Your task to perform on an android device: What's the weather going to be this weekend? Image 0: 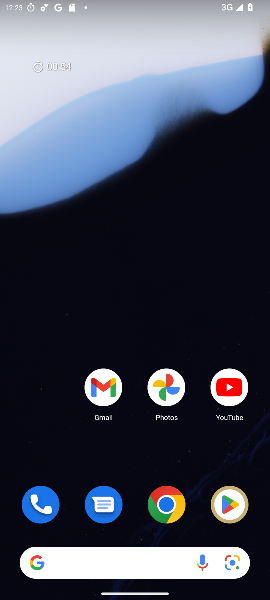
Step 0: press home button
Your task to perform on an android device: What's the weather going to be this weekend? Image 1: 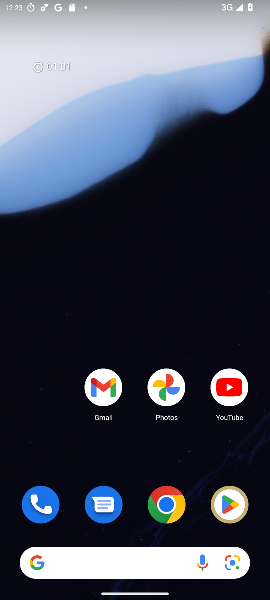
Step 1: drag from (137, 532) to (127, 215)
Your task to perform on an android device: What's the weather going to be this weekend? Image 2: 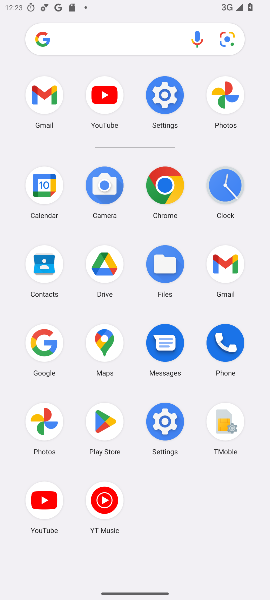
Step 2: click (46, 349)
Your task to perform on an android device: What's the weather going to be this weekend? Image 3: 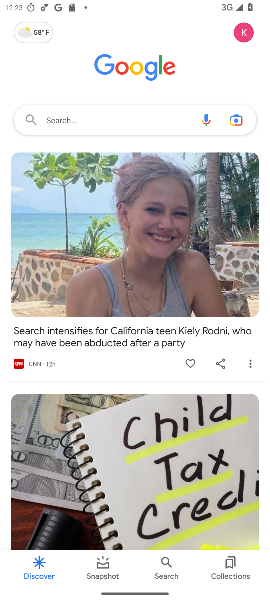
Step 3: click (66, 115)
Your task to perform on an android device: What's the weather going to be this weekend? Image 4: 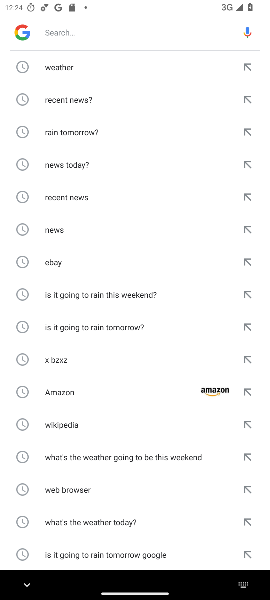
Step 4: type "weather going to be this weekend?"
Your task to perform on an android device: What's the weather going to be this weekend? Image 5: 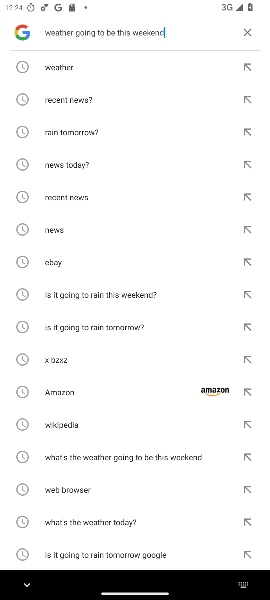
Step 5: press enter
Your task to perform on an android device: What's the weather going to be this weekend? Image 6: 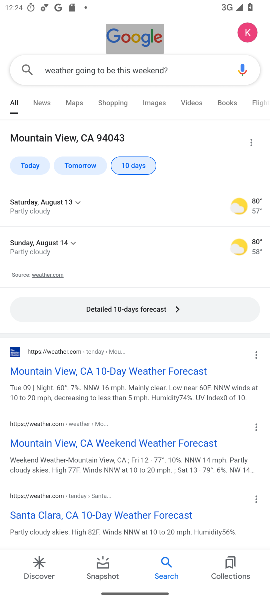
Step 6: task complete